Your task to perform on an android device: see creations saved in the google photos Image 0: 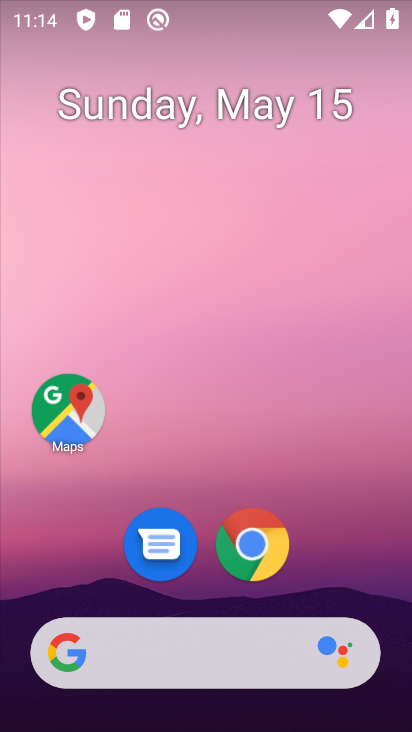
Step 0: drag from (381, 603) to (308, 59)
Your task to perform on an android device: see creations saved in the google photos Image 1: 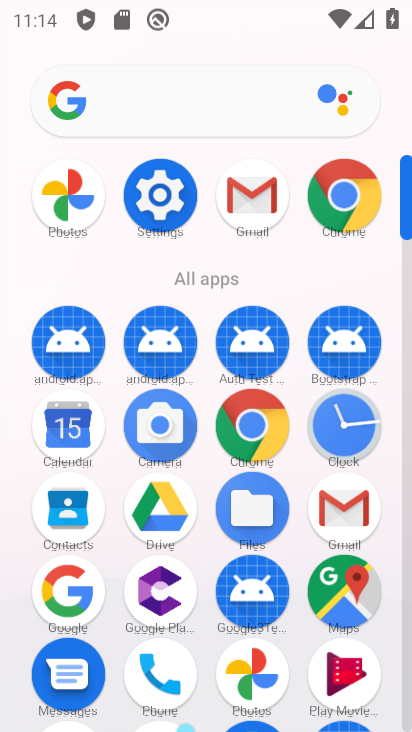
Step 1: click (63, 209)
Your task to perform on an android device: see creations saved in the google photos Image 2: 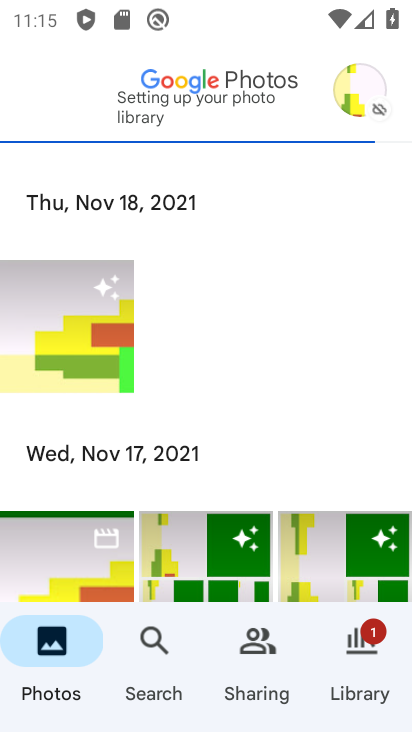
Step 2: click (165, 647)
Your task to perform on an android device: see creations saved in the google photos Image 3: 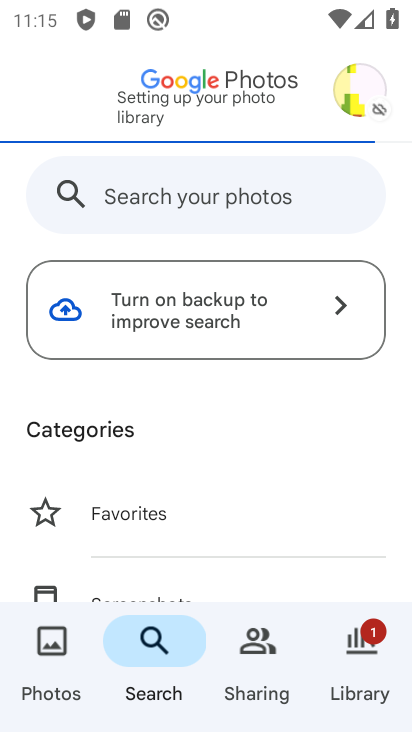
Step 3: click (175, 196)
Your task to perform on an android device: see creations saved in the google photos Image 4: 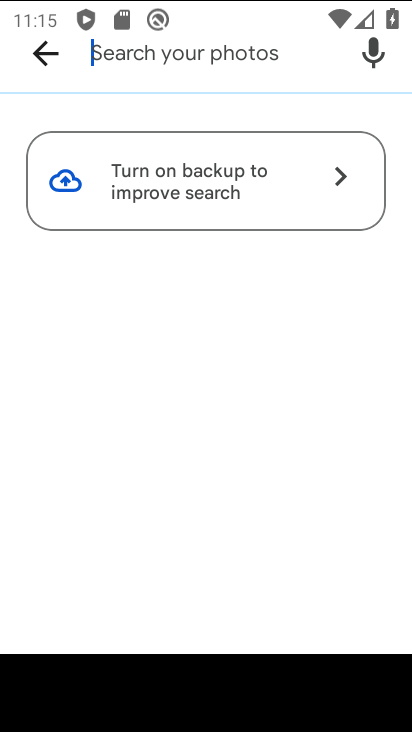
Step 4: click (54, 51)
Your task to perform on an android device: see creations saved in the google photos Image 5: 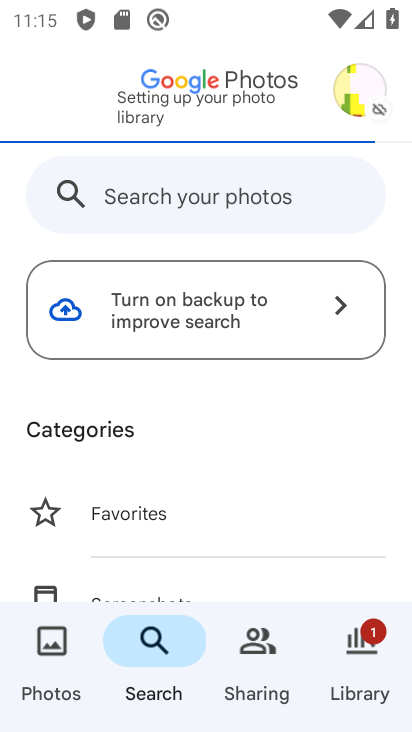
Step 5: drag from (236, 556) to (202, 35)
Your task to perform on an android device: see creations saved in the google photos Image 6: 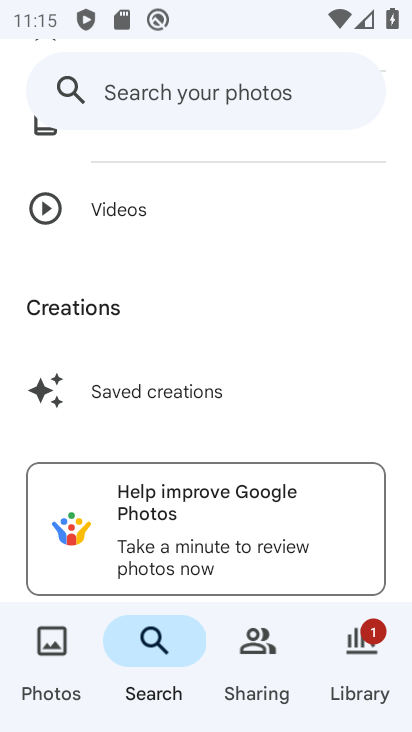
Step 6: click (269, 387)
Your task to perform on an android device: see creations saved in the google photos Image 7: 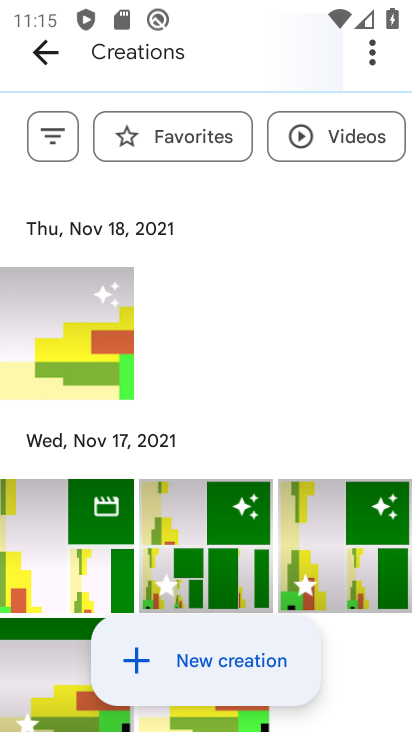
Step 7: task complete